Your task to perform on an android device: star an email in the gmail app Image 0: 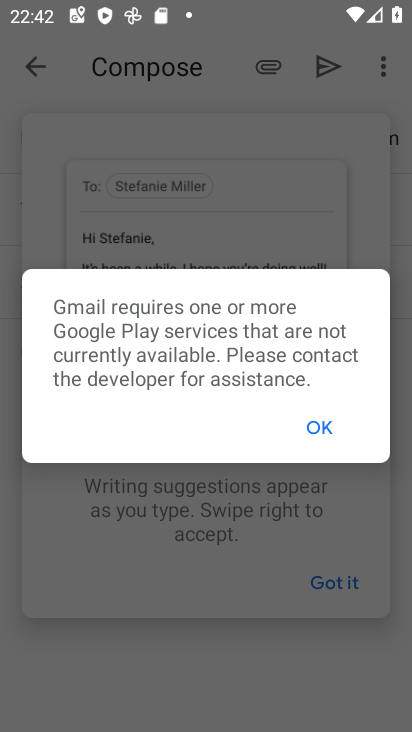
Step 0: click (327, 429)
Your task to perform on an android device: star an email in the gmail app Image 1: 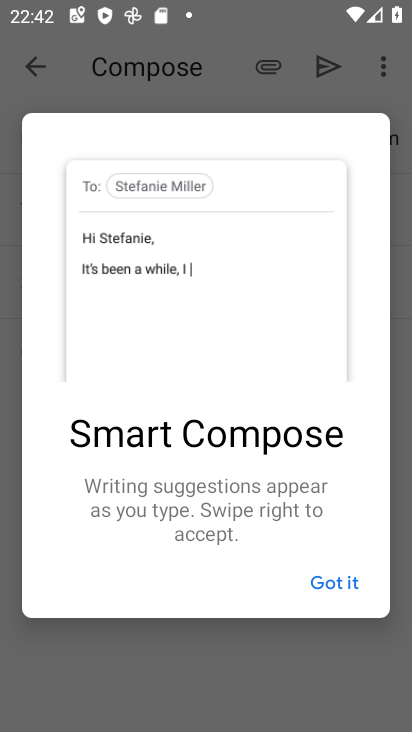
Step 1: click (313, 573)
Your task to perform on an android device: star an email in the gmail app Image 2: 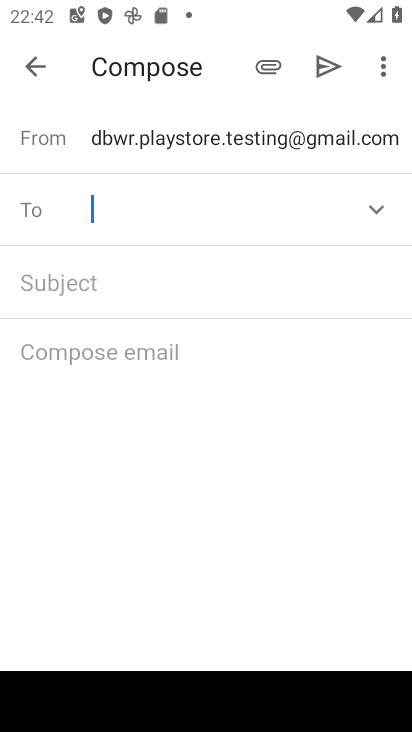
Step 2: drag from (229, 536) to (229, 302)
Your task to perform on an android device: star an email in the gmail app Image 3: 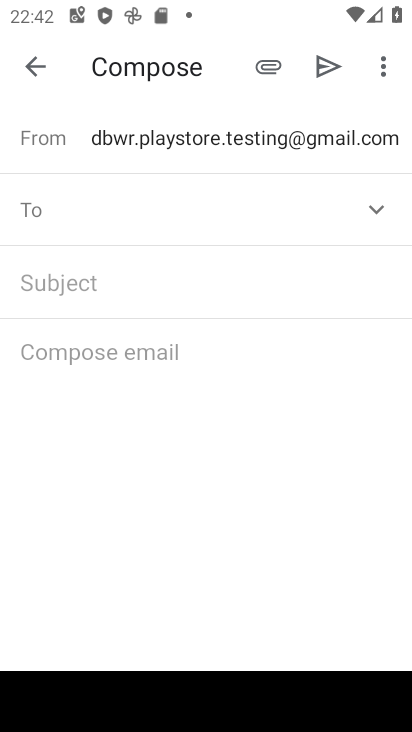
Step 3: press back button
Your task to perform on an android device: star an email in the gmail app Image 4: 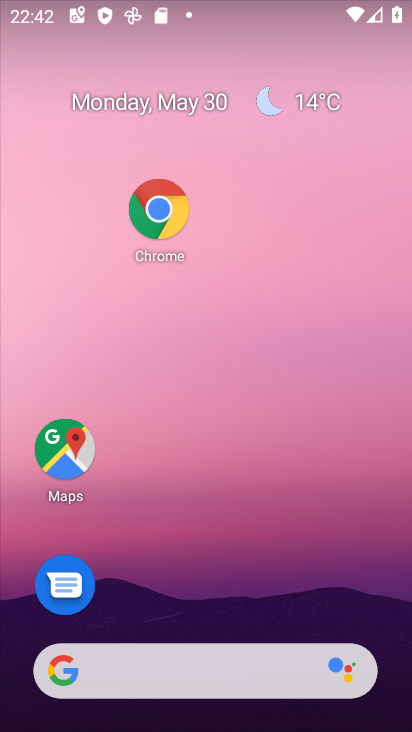
Step 4: drag from (238, 582) to (234, 80)
Your task to perform on an android device: star an email in the gmail app Image 5: 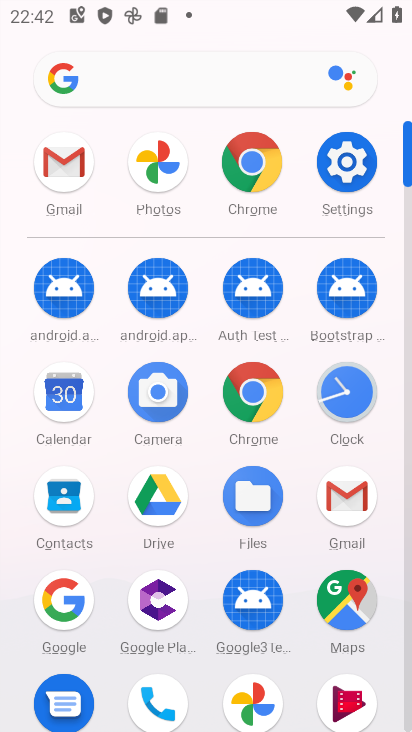
Step 5: click (344, 495)
Your task to perform on an android device: star an email in the gmail app Image 6: 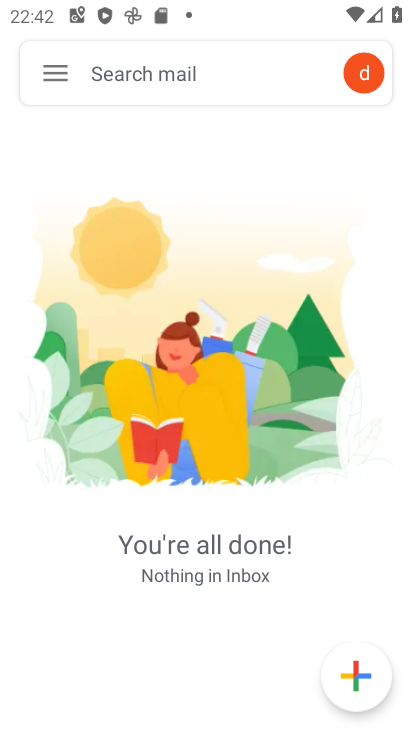
Step 6: drag from (172, 586) to (220, 268)
Your task to perform on an android device: star an email in the gmail app Image 7: 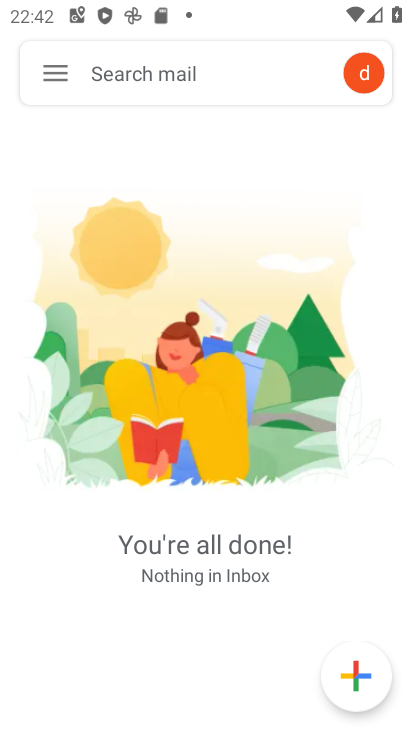
Step 7: click (41, 88)
Your task to perform on an android device: star an email in the gmail app Image 8: 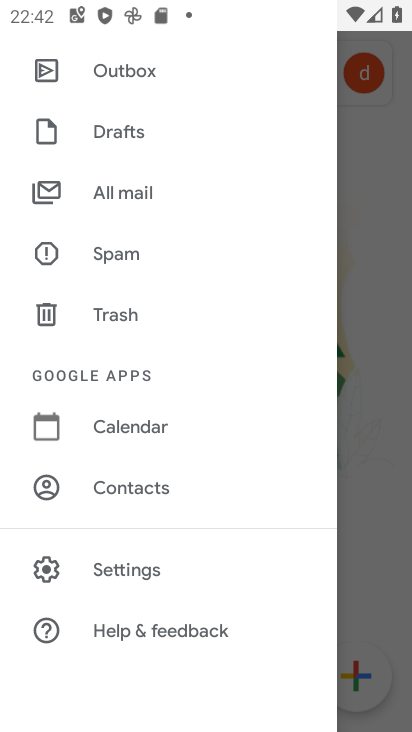
Step 8: drag from (113, 140) to (173, 457)
Your task to perform on an android device: star an email in the gmail app Image 9: 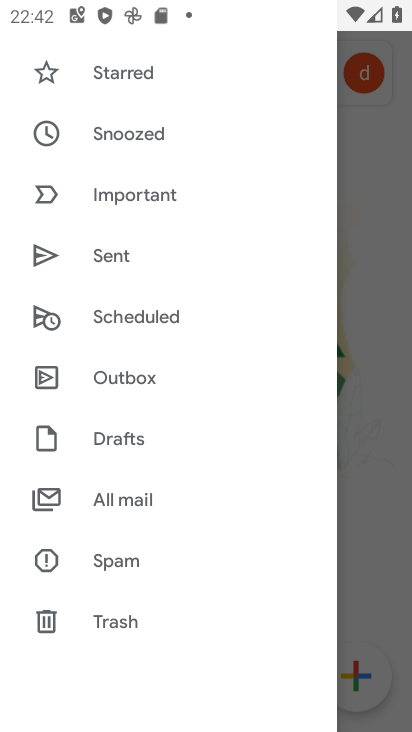
Step 9: drag from (145, 162) to (140, 426)
Your task to perform on an android device: star an email in the gmail app Image 10: 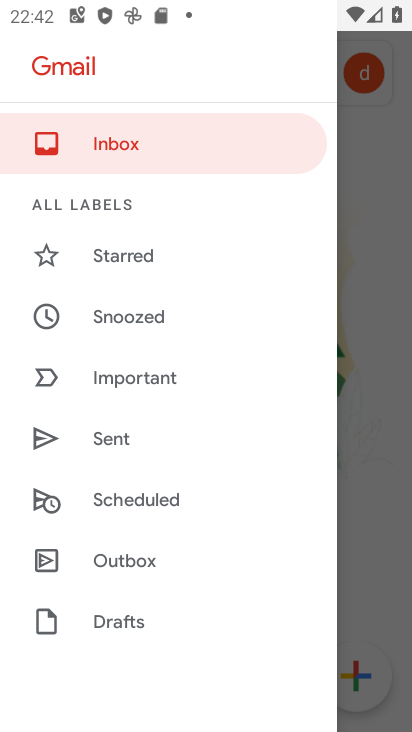
Step 10: click (126, 257)
Your task to perform on an android device: star an email in the gmail app Image 11: 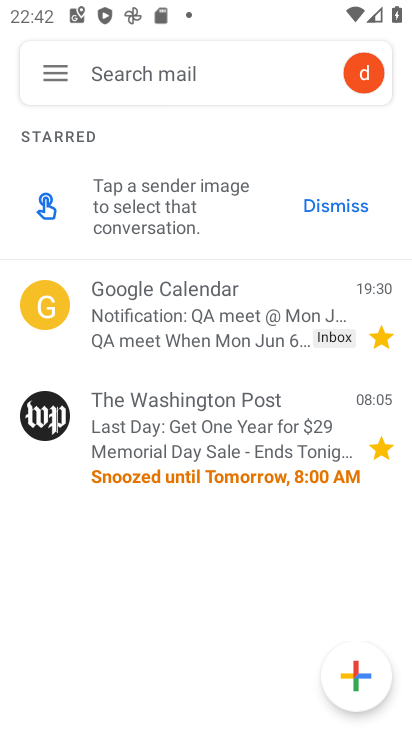
Step 11: task complete